Your task to perform on an android device: Go to sound settings Image 0: 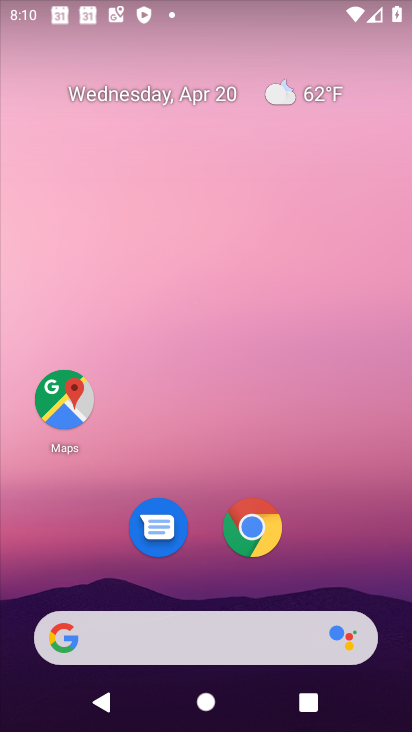
Step 0: drag from (201, 610) to (231, 222)
Your task to perform on an android device: Go to sound settings Image 1: 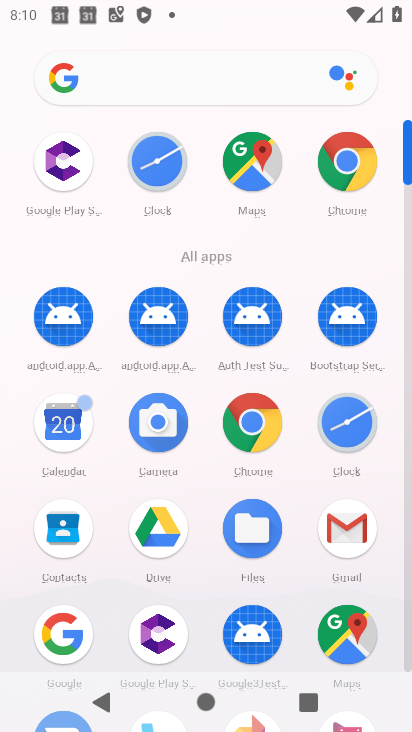
Step 1: drag from (222, 609) to (181, 129)
Your task to perform on an android device: Go to sound settings Image 2: 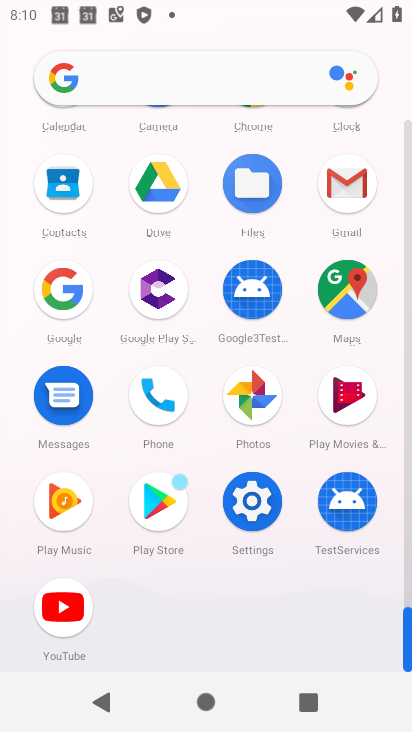
Step 2: click (257, 520)
Your task to perform on an android device: Go to sound settings Image 3: 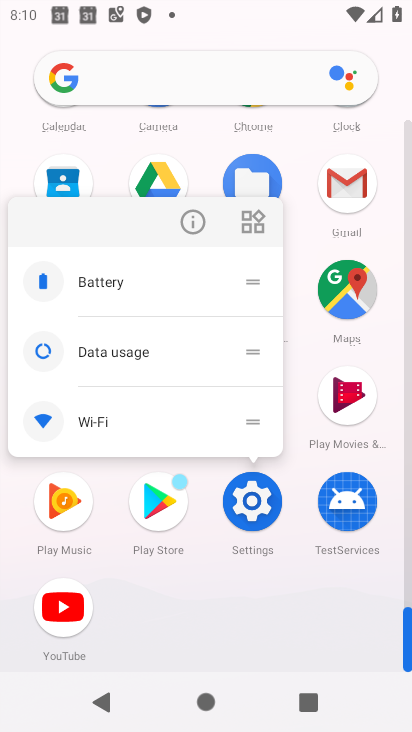
Step 3: click (255, 512)
Your task to perform on an android device: Go to sound settings Image 4: 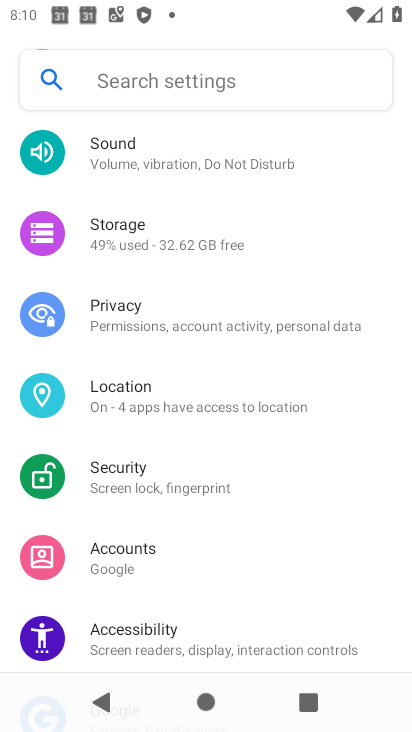
Step 4: drag from (188, 645) to (206, 245)
Your task to perform on an android device: Go to sound settings Image 5: 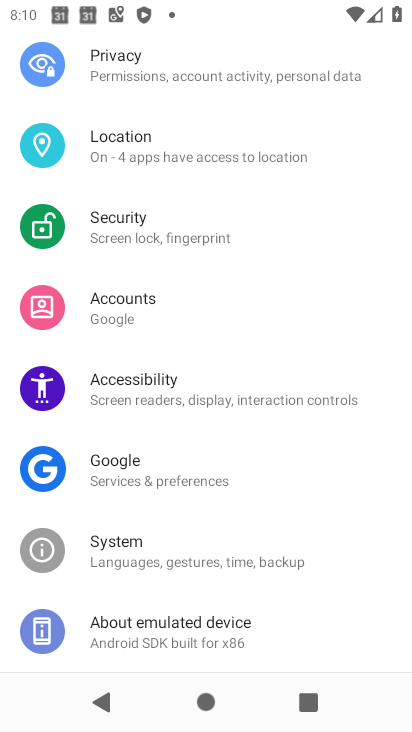
Step 5: drag from (210, 155) to (218, 553)
Your task to perform on an android device: Go to sound settings Image 6: 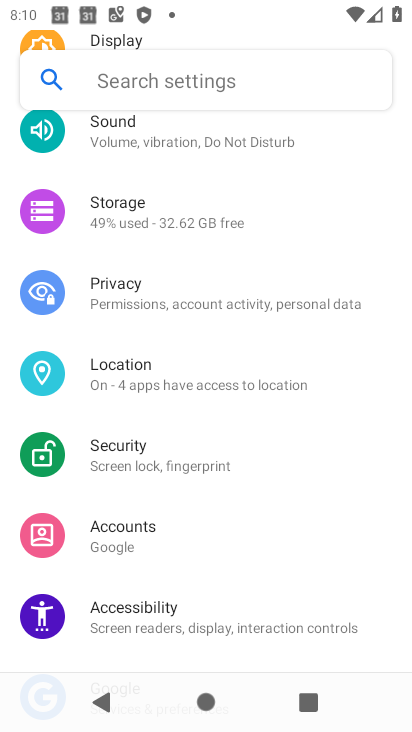
Step 6: click (144, 135)
Your task to perform on an android device: Go to sound settings Image 7: 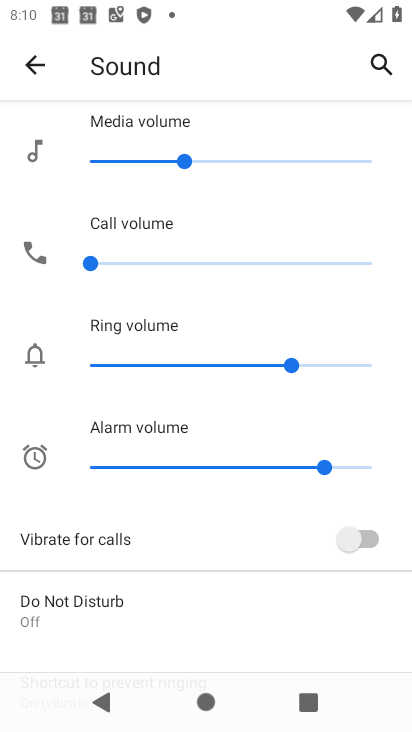
Step 7: task complete